Your task to perform on an android device: Turn off the flashlight Image 0: 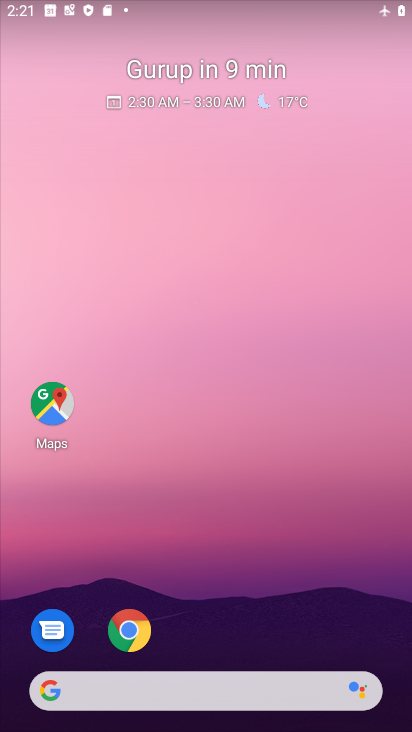
Step 0: drag from (254, 633) to (313, 6)
Your task to perform on an android device: Turn off the flashlight Image 1: 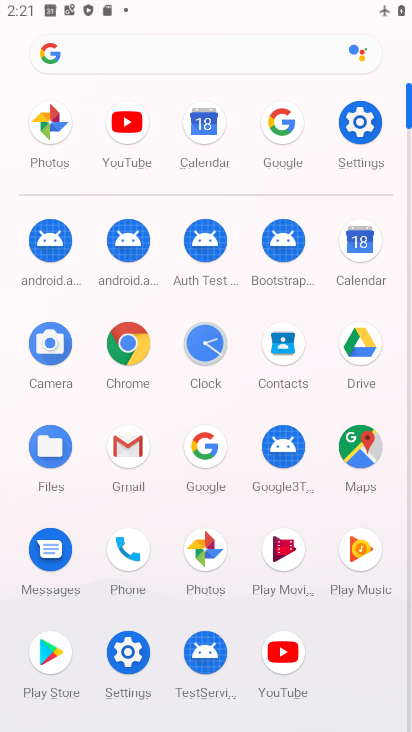
Step 1: click (358, 120)
Your task to perform on an android device: Turn off the flashlight Image 2: 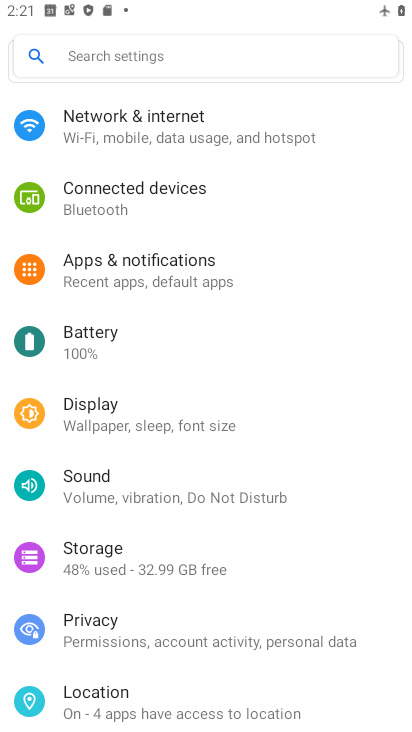
Step 2: click (288, 55)
Your task to perform on an android device: Turn off the flashlight Image 3: 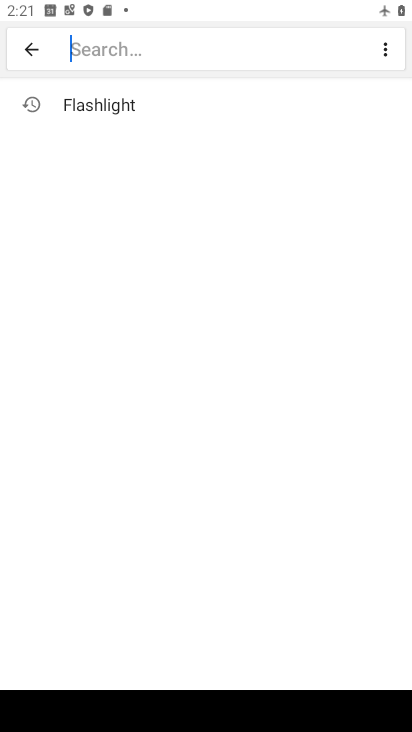
Step 3: type "Flashlight"
Your task to perform on an android device: Turn off the flashlight Image 4: 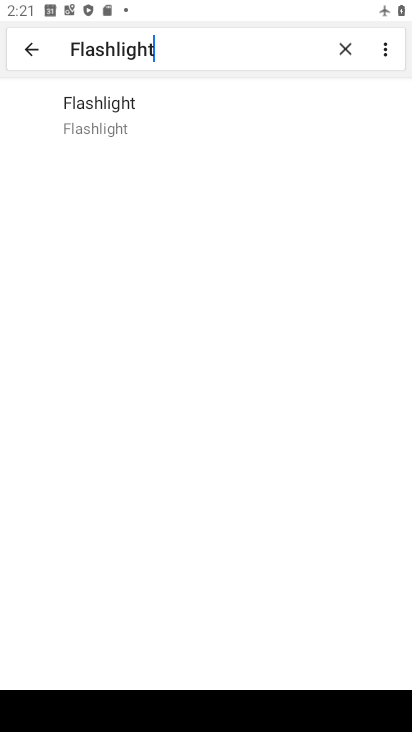
Step 4: click (116, 102)
Your task to perform on an android device: Turn off the flashlight Image 5: 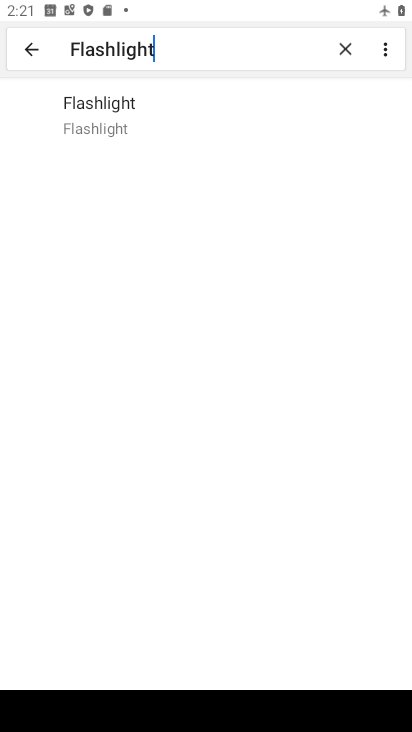
Step 5: click (120, 112)
Your task to perform on an android device: Turn off the flashlight Image 6: 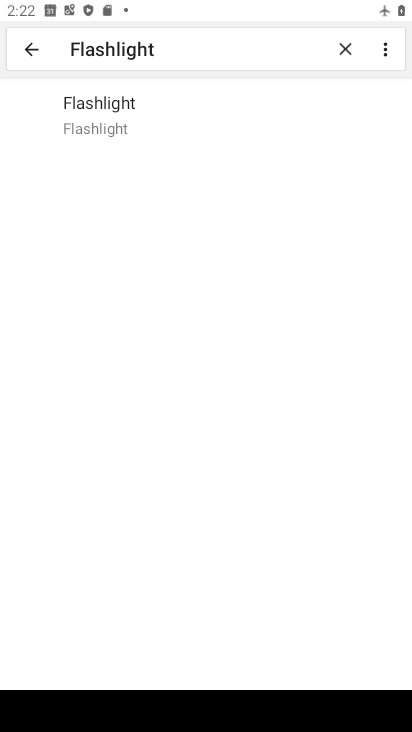
Step 6: click (107, 104)
Your task to perform on an android device: Turn off the flashlight Image 7: 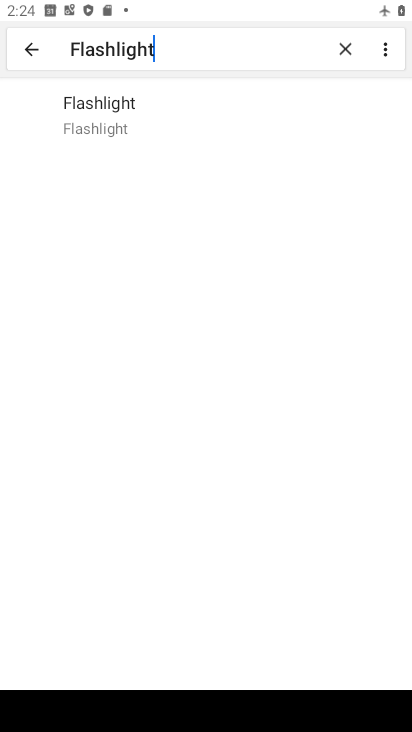
Step 7: task complete